Your task to perform on an android device: toggle pop-ups in chrome Image 0: 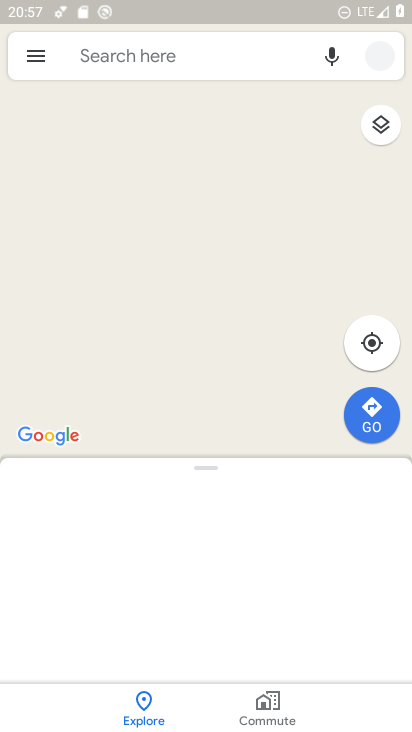
Step 0: click (220, 172)
Your task to perform on an android device: toggle pop-ups in chrome Image 1: 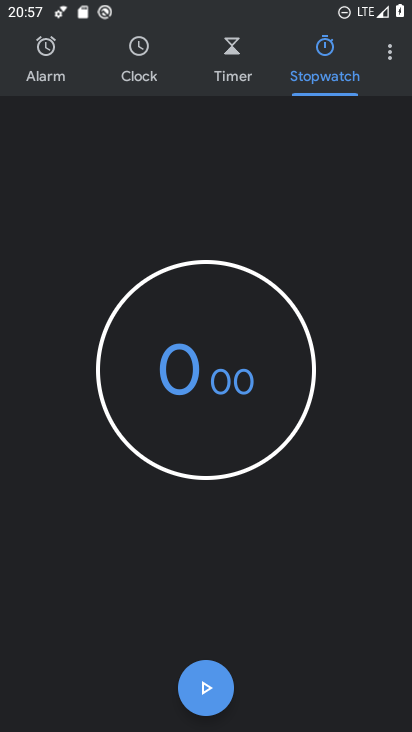
Step 1: click (384, 56)
Your task to perform on an android device: toggle pop-ups in chrome Image 2: 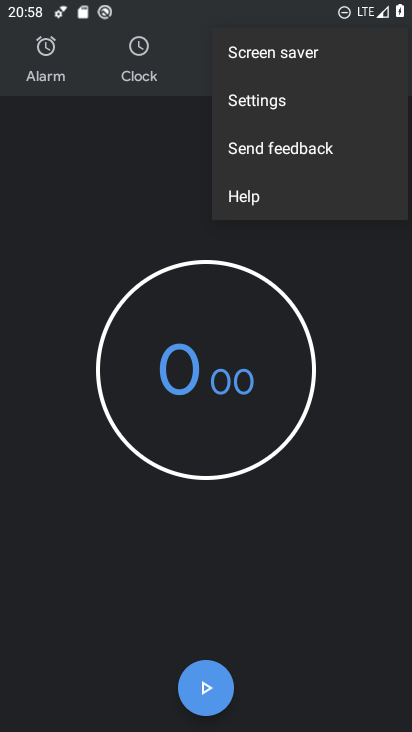
Step 2: press home button
Your task to perform on an android device: toggle pop-ups in chrome Image 3: 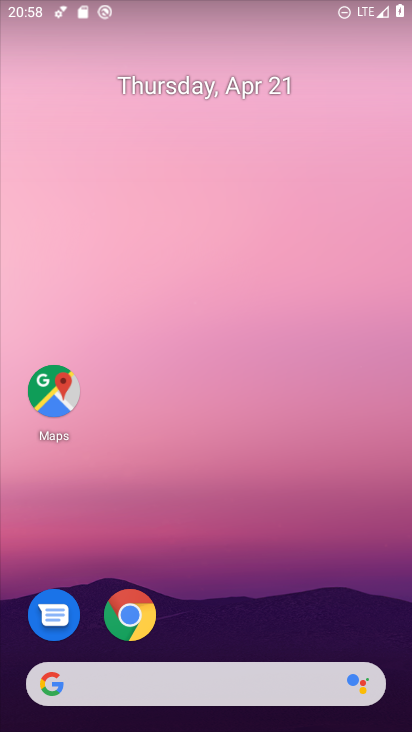
Step 3: click (134, 617)
Your task to perform on an android device: toggle pop-ups in chrome Image 4: 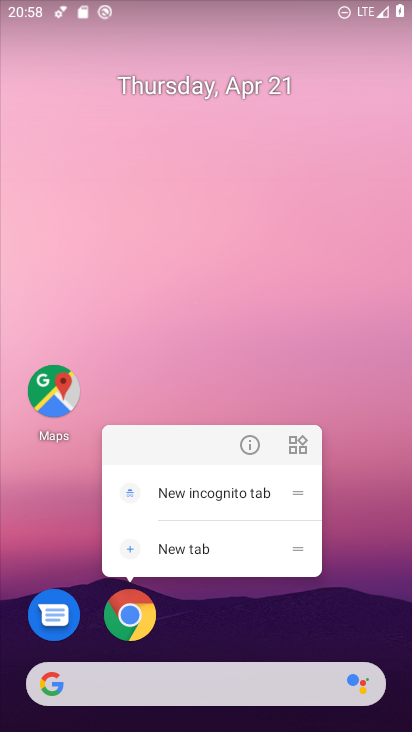
Step 4: click (250, 440)
Your task to perform on an android device: toggle pop-ups in chrome Image 5: 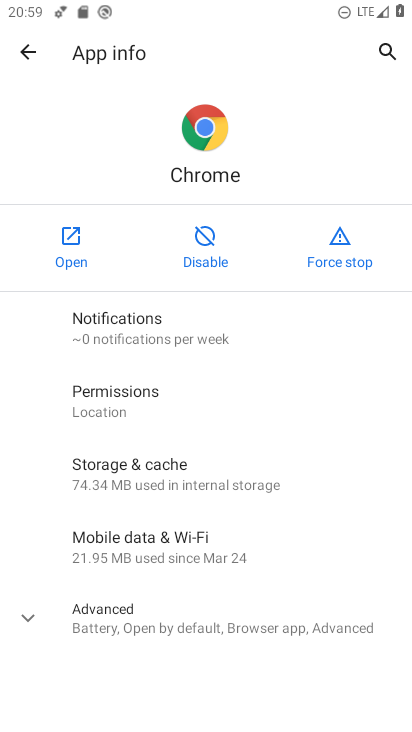
Step 5: click (68, 251)
Your task to perform on an android device: toggle pop-ups in chrome Image 6: 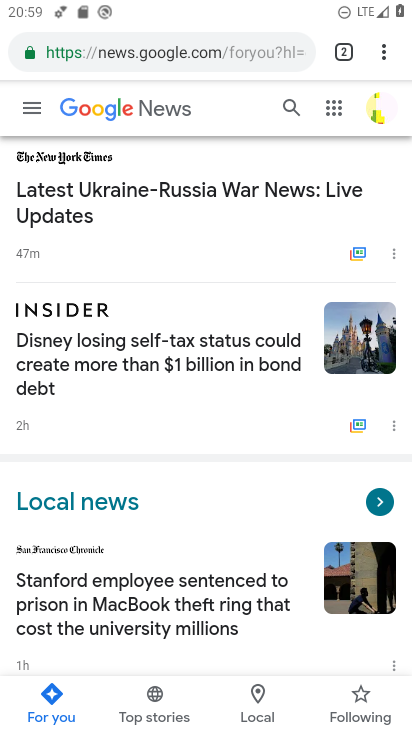
Step 6: drag from (382, 59) to (243, 656)
Your task to perform on an android device: toggle pop-ups in chrome Image 7: 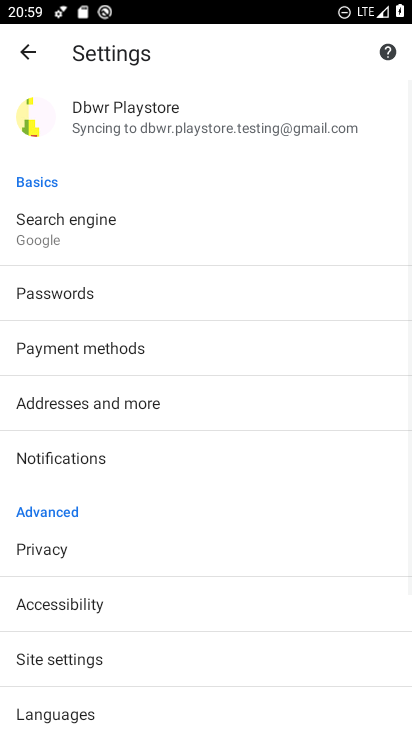
Step 7: click (163, 667)
Your task to perform on an android device: toggle pop-ups in chrome Image 8: 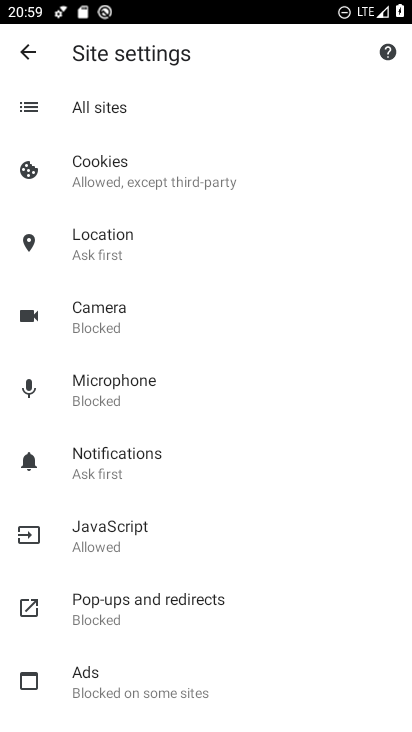
Step 8: click (185, 619)
Your task to perform on an android device: toggle pop-ups in chrome Image 9: 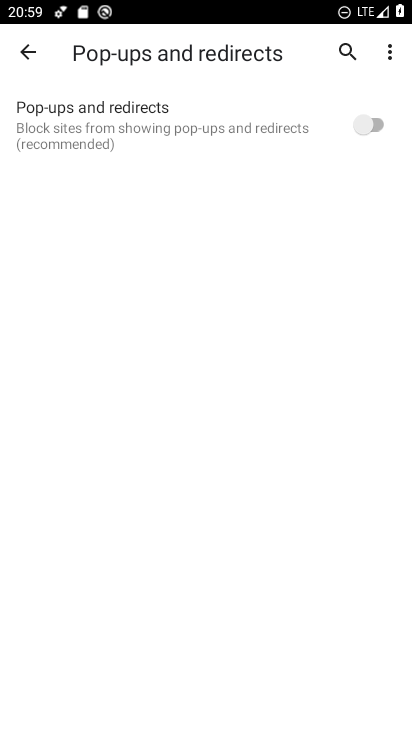
Step 9: click (360, 112)
Your task to perform on an android device: toggle pop-ups in chrome Image 10: 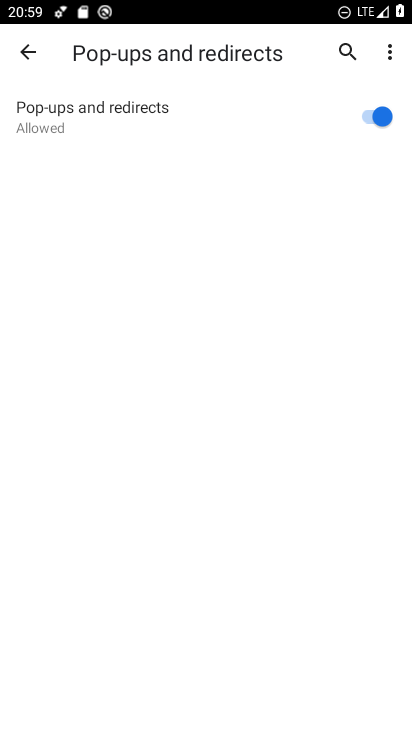
Step 10: task complete